Your task to perform on an android device: set the timer Image 0: 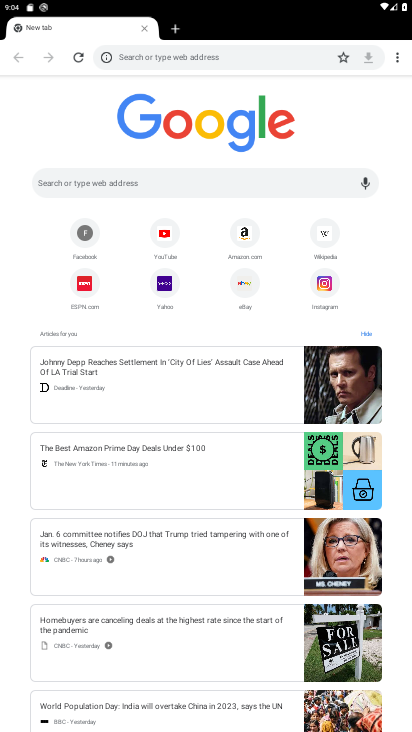
Step 0: press home button
Your task to perform on an android device: set the timer Image 1: 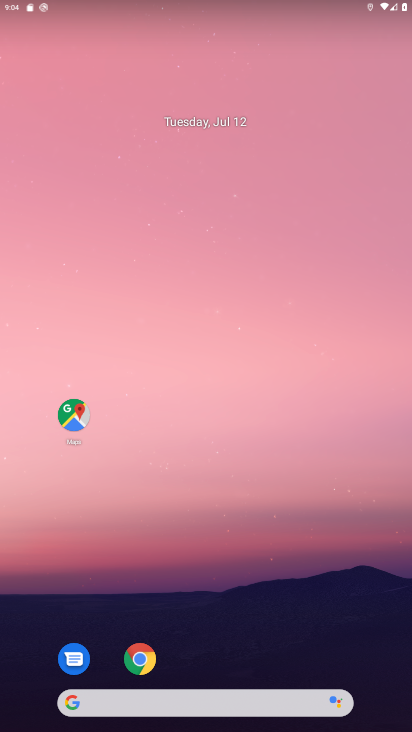
Step 1: drag from (265, 568) to (223, 47)
Your task to perform on an android device: set the timer Image 2: 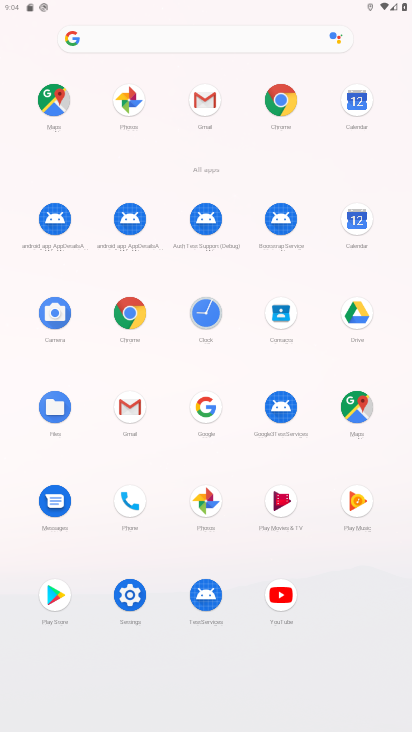
Step 2: click (206, 312)
Your task to perform on an android device: set the timer Image 3: 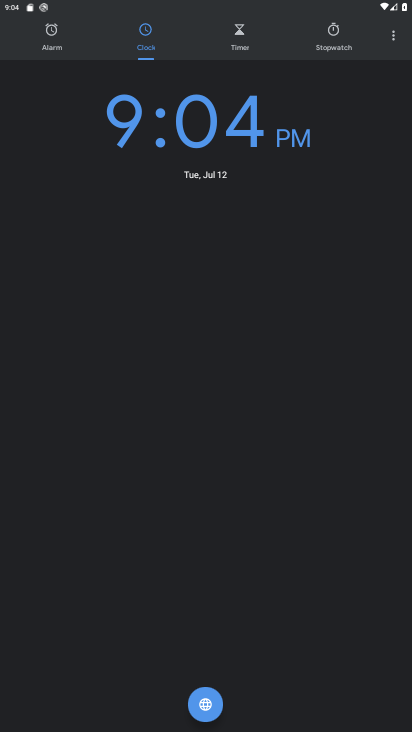
Step 3: click (247, 32)
Your task to perform on an android device: set the timer Image 4: 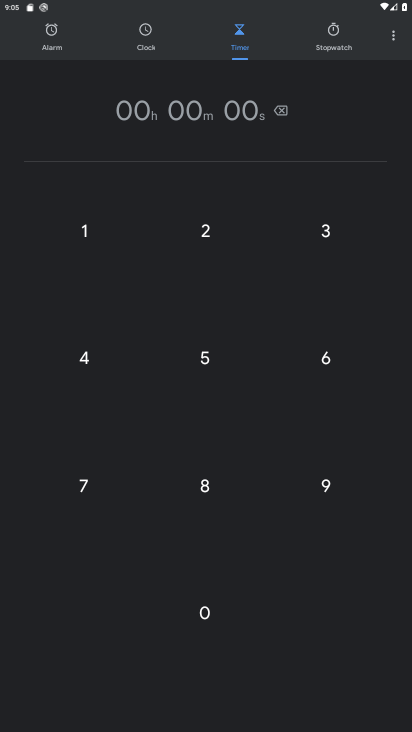
Step 4: click (215, 233)
Your task to perform on an android device: set the timer Image 5: 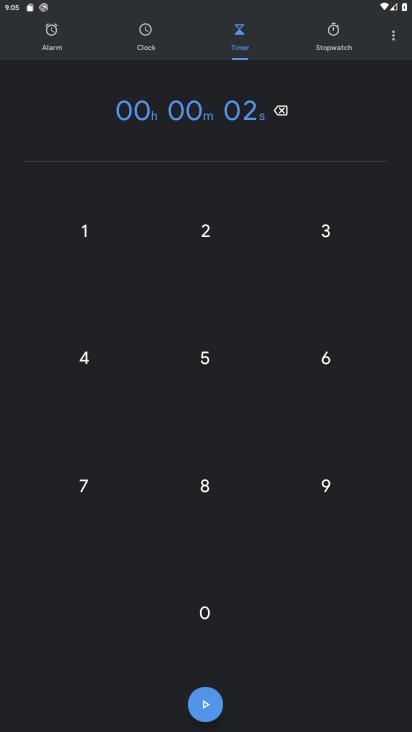
Step 5: click (200, 472)
Your task to perform on an android device: set the timer Image 6: 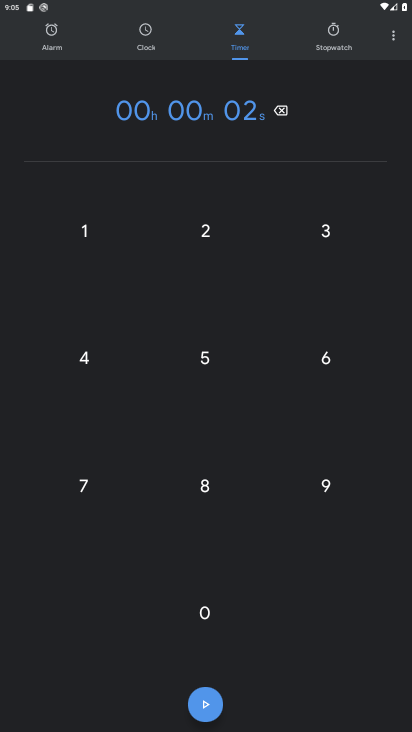
Step 6: click (200, 472)
Your task to perform on an android device: set the timer Image 7: 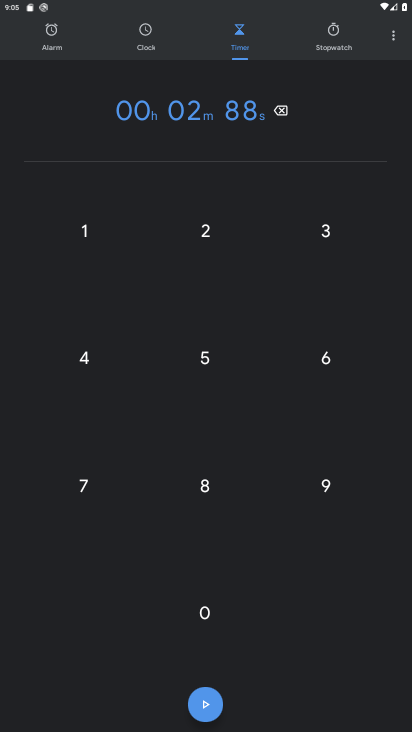
Step 7: click (216, 707)
Your task to perform on an android device: set the timer Image 8: 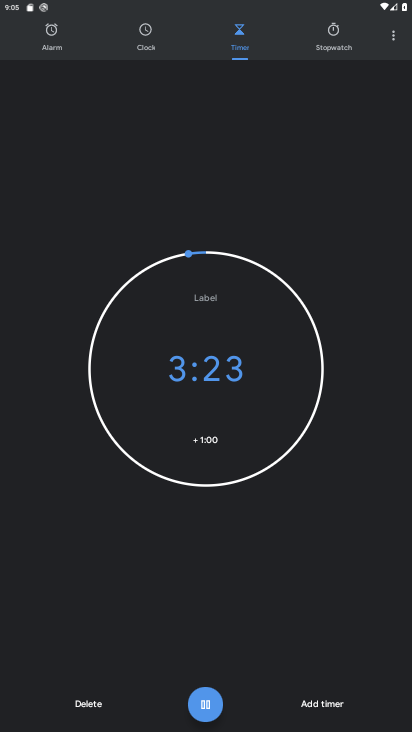
Step 8: task complete